Your task to perform on an android device: What's the weather today? Image 0: 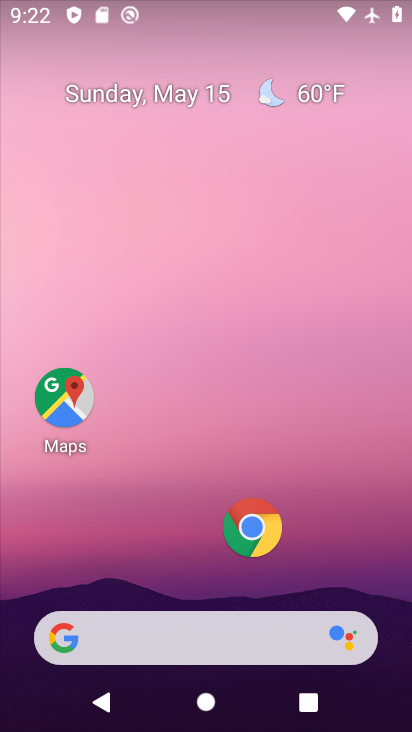
Step 0: press home button
Your task to perform on an android device: What's the weather today? Image 1: 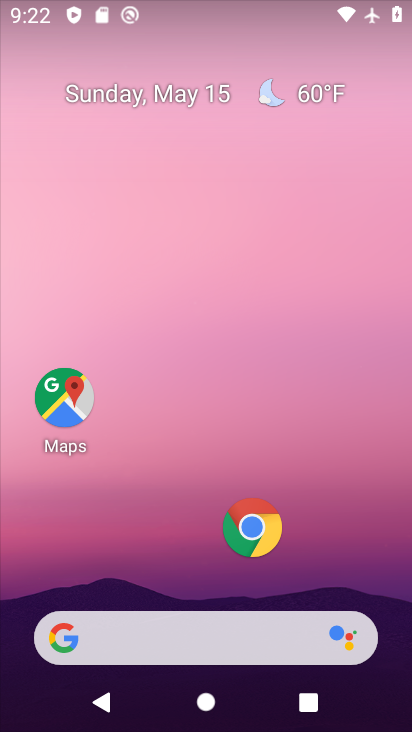
Step 1: click (327, 91)
Your task to perform on an android device: What's the weather today? Image 2: 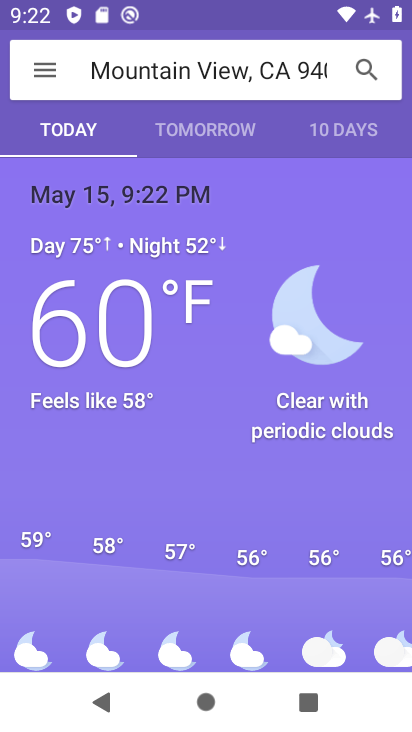
Step 2: task complete